Your task to perform on an android device: Go to Android settings Image 0: 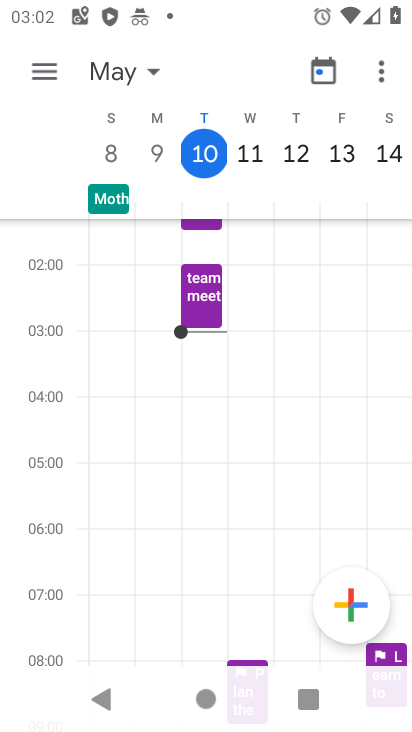
Step 0: press home button
Your task to perform on an android device: Go to Android settings Image 1: 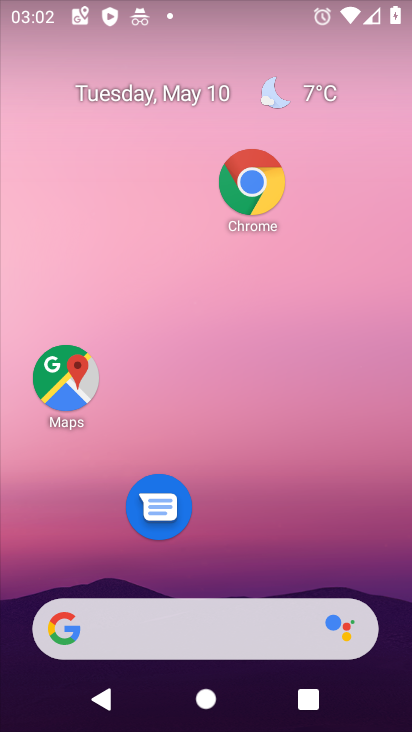
Step 1: drag from (277, 554) to (254, 122)
Your task to perform on an android device: Go to Android settings Image 2: 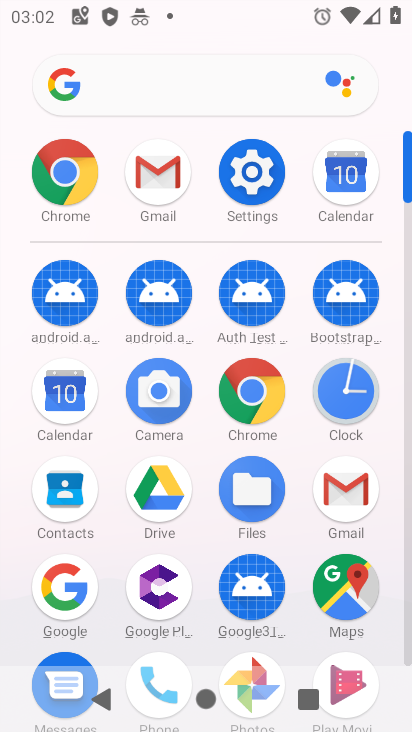
Step 2: click (253, 149)
Your task to perform on an android device: Go to Android settings Image 3: 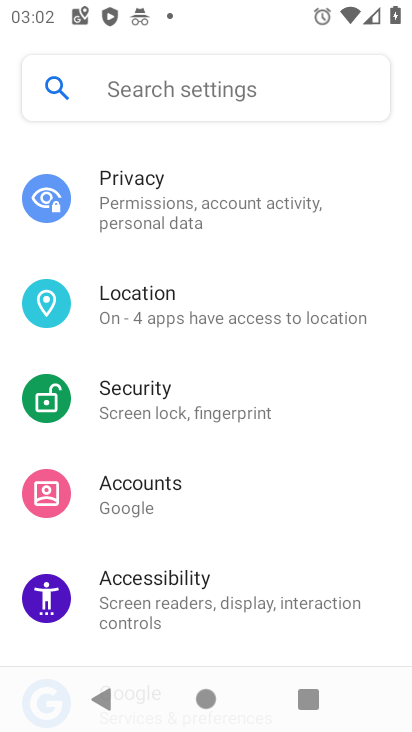
Step 3: drag from (234, 553) to (149, 177)
Your task to perform on an android device: Go to Android settings Image 4: 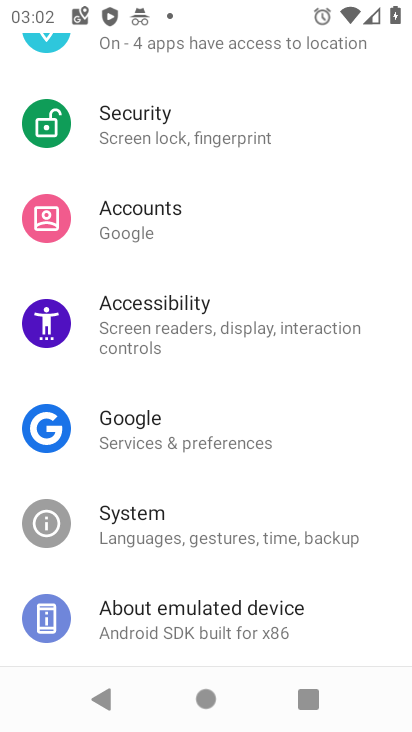
Step 4: click (171, 595)
Your task to perform on an android device: Go to Android settings Image 5: 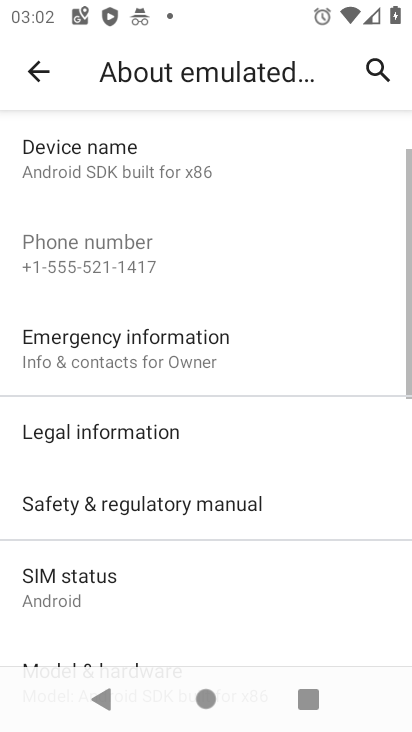
Step 5: task complete